Your task to perform on an android device: uninstall "PlayWell" Image 0: 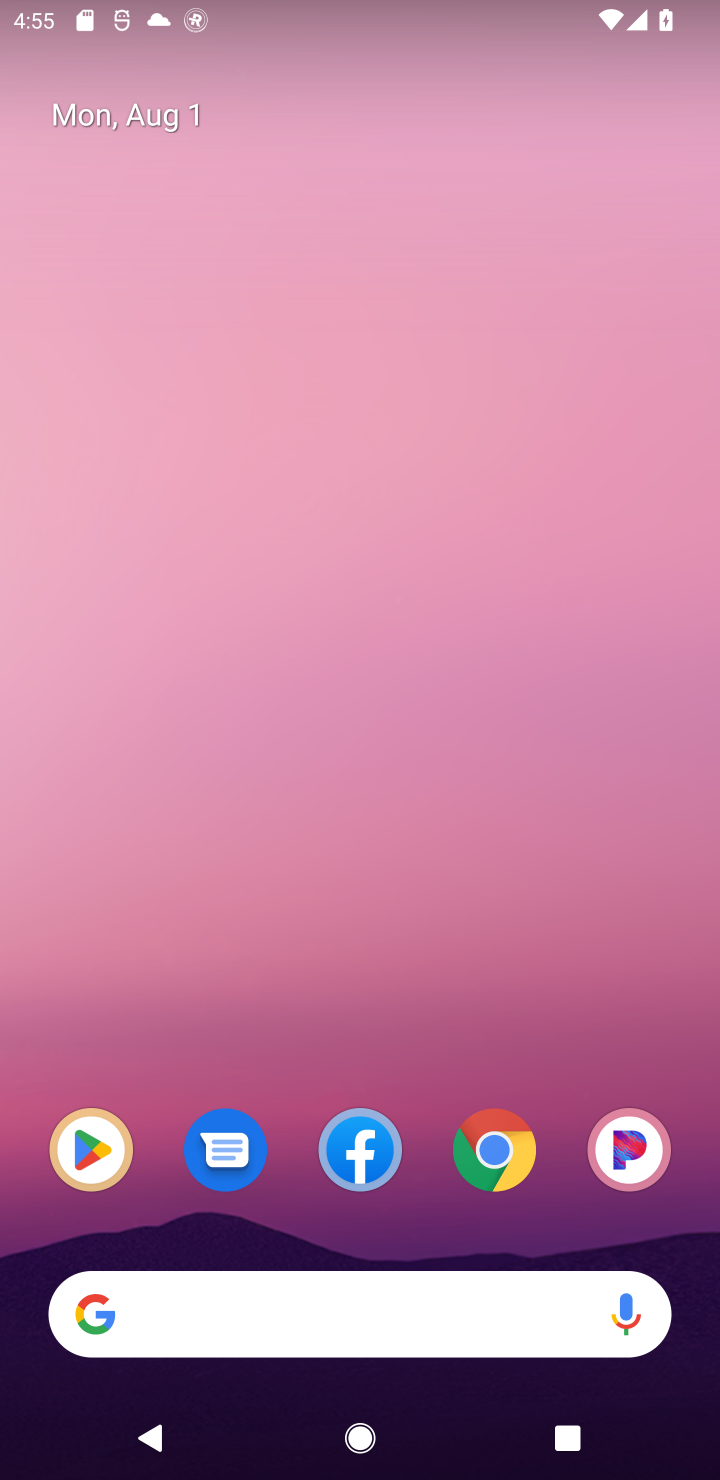
Step 0: click (96, 1182)
Your task to perform on an android device: uninstall "PlayWell" Image 1: 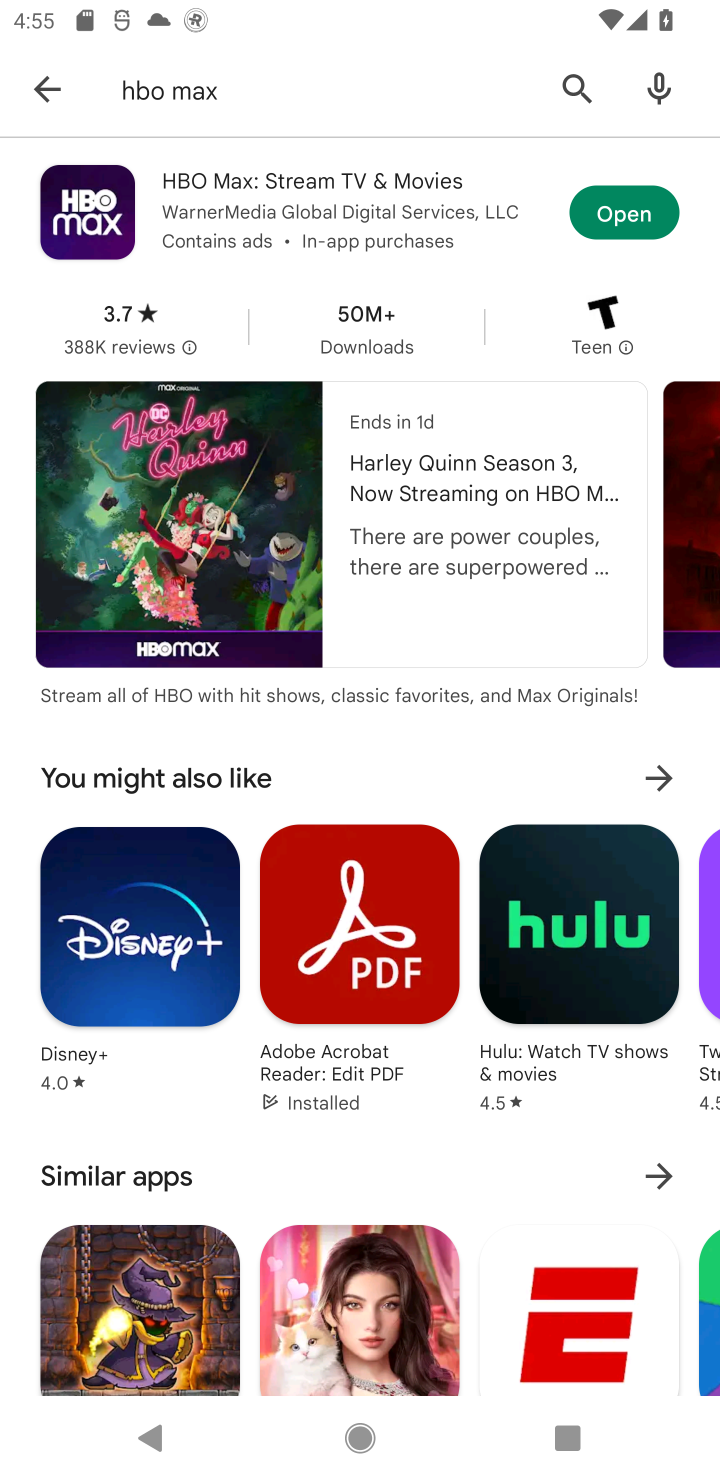
Step 1: click (591, 93)
Your task to perform on an android device: uninstall "PlayWell" Image 2: 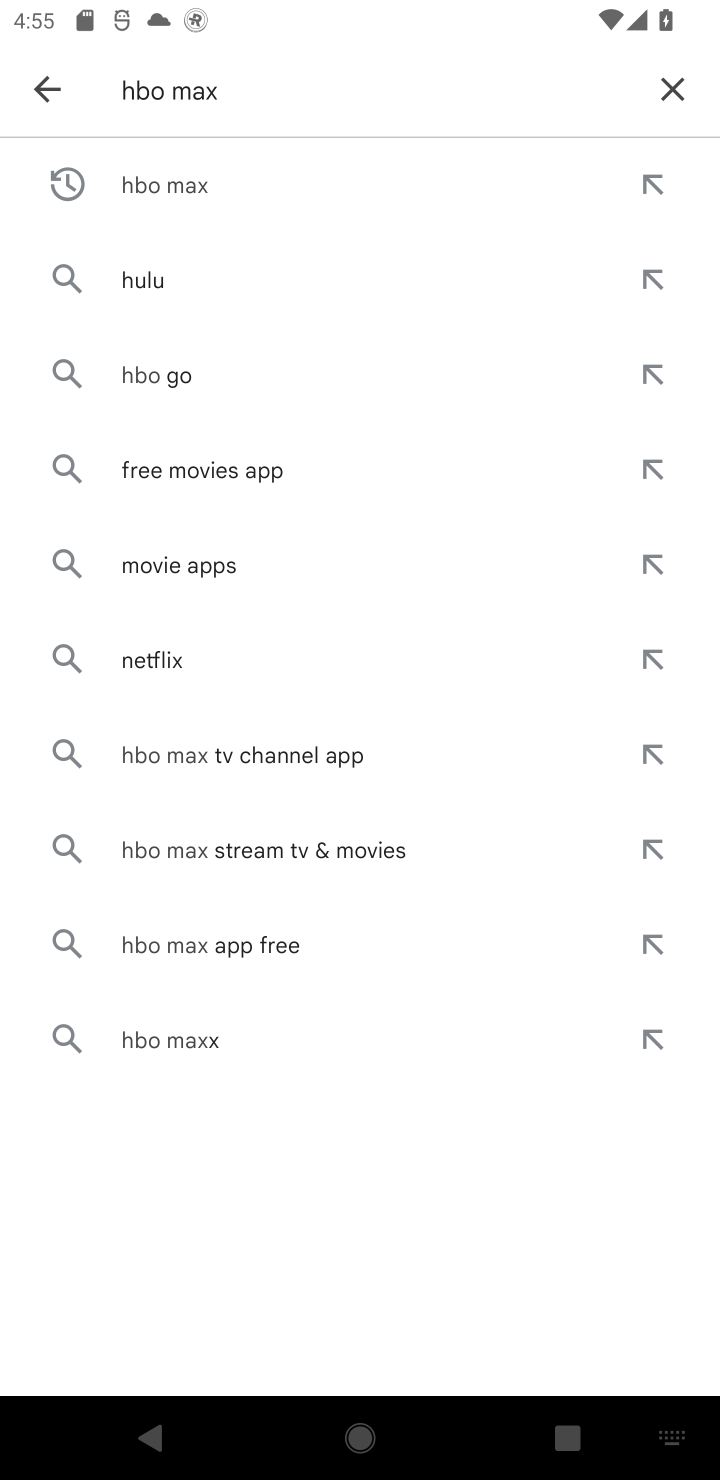
Step 2: click (663, 90)
Your task to perform on an android device: uninstall "PlayWell" Image 3: 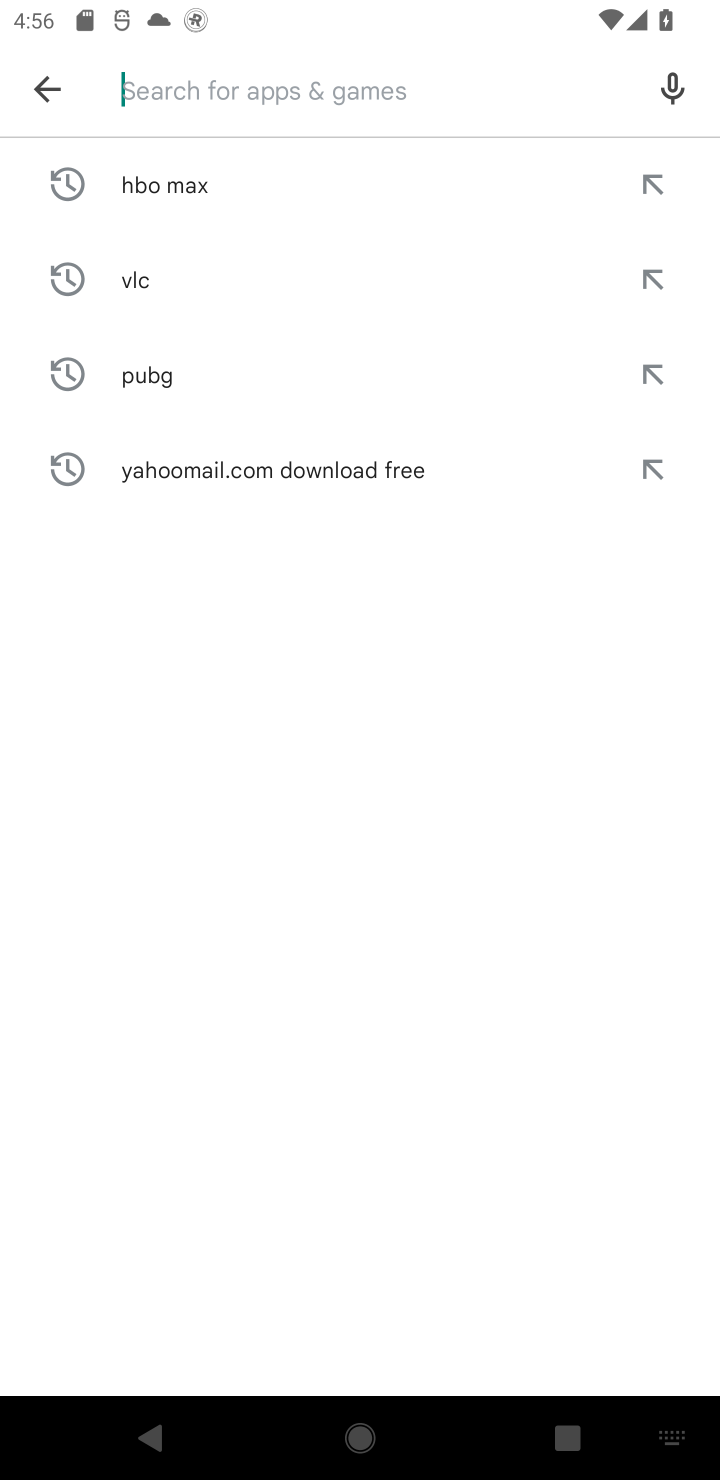
Step 3: type "playwell"
Your task to perform on an android device: uninstall "PlayWell" Image 4: 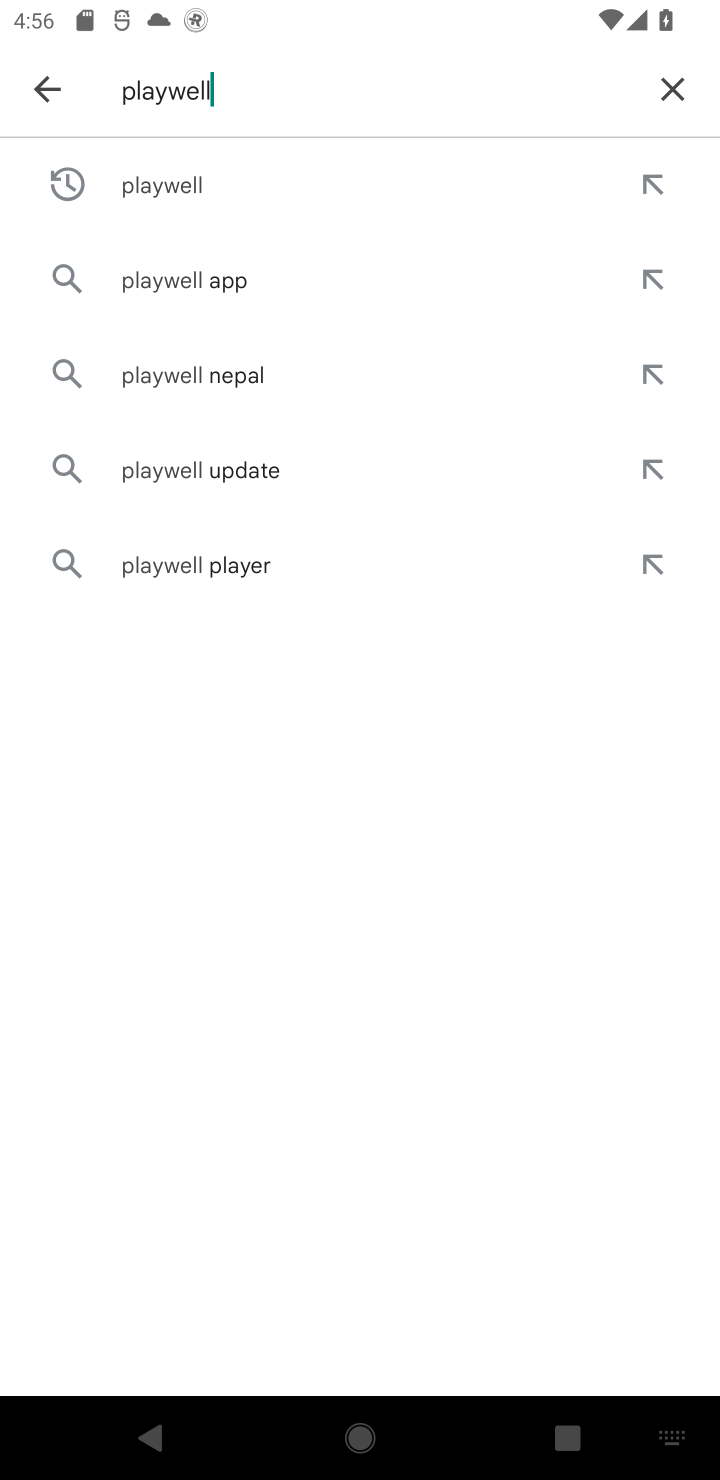
Step 4: click (450, 215)
Your task to perform on an android device: uninstall "PlayWell" Image 5: 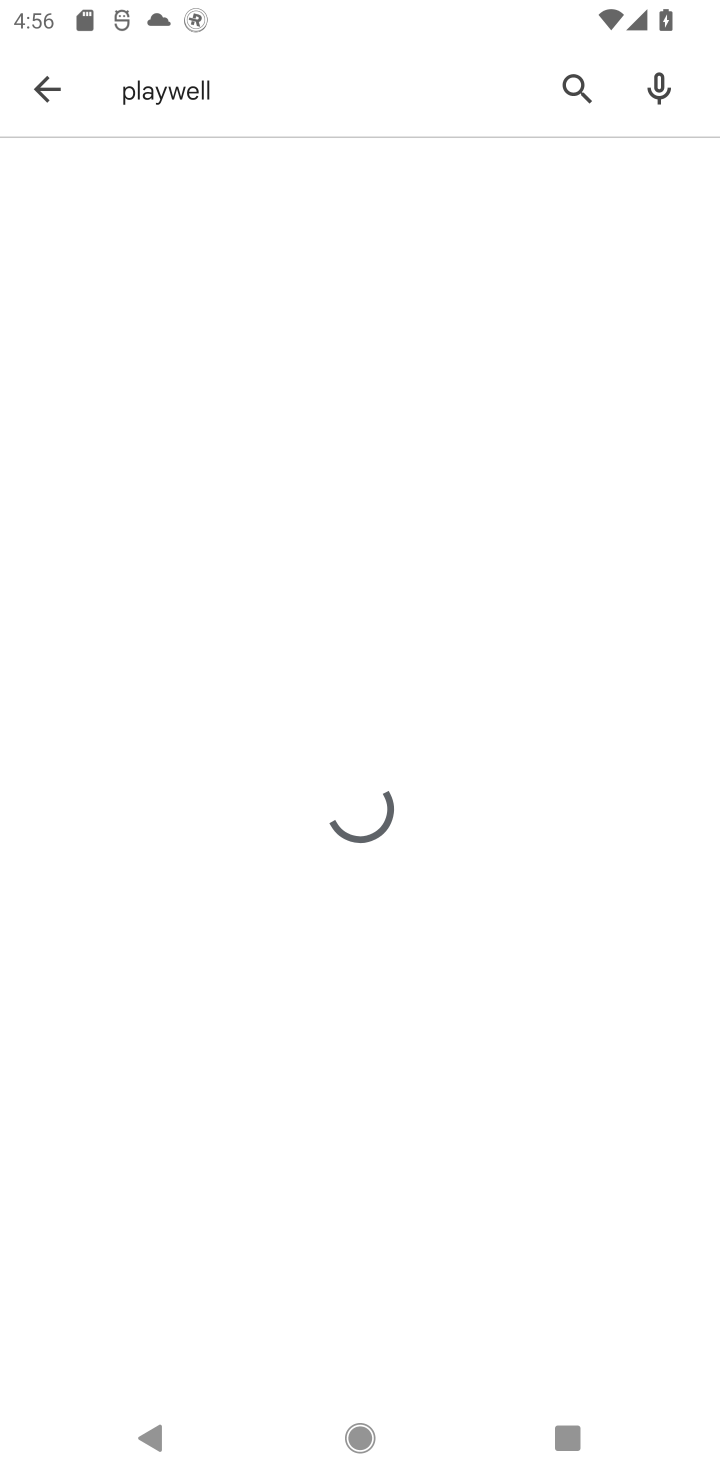
Step 5: task complete